Your task to perform on an android device: turn off location history Image 0: 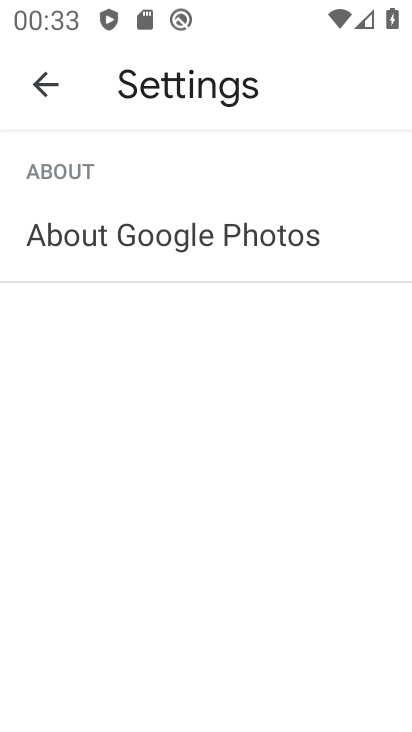
Step 0: press home button
Your task to perform on an android device: turn off location history Image 1: 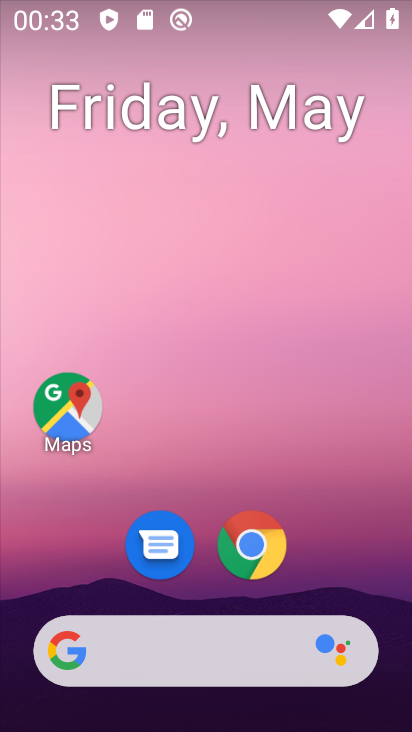
Step 1: drag from (279, 591) to (224, 205)
Your task to perform on an android device: turn off location history Image 2: 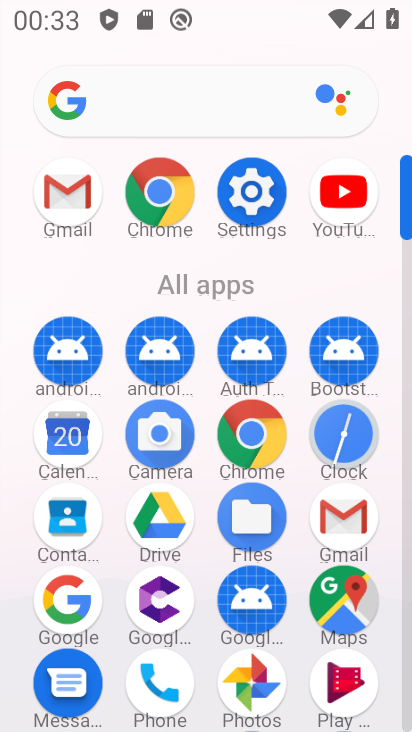
Step 2: click (265, 201)
Your task to perform on an android device: turn off location history Image 3: 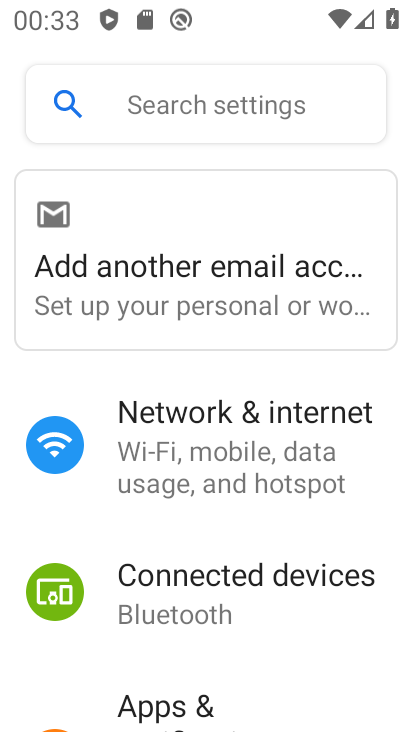
Step 3: drag from (224, 627) to (154, 329)
Your task to perform on an android device: turn off location history Image 4: 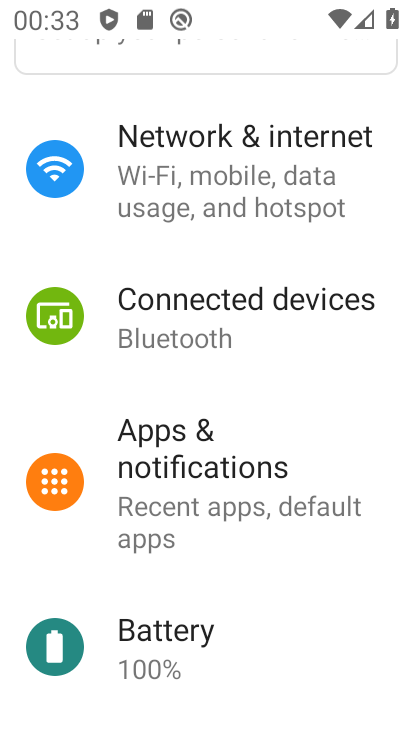
Step 4: click (170, 491)
Your task to perform on an android device: turn off location history Image 5: 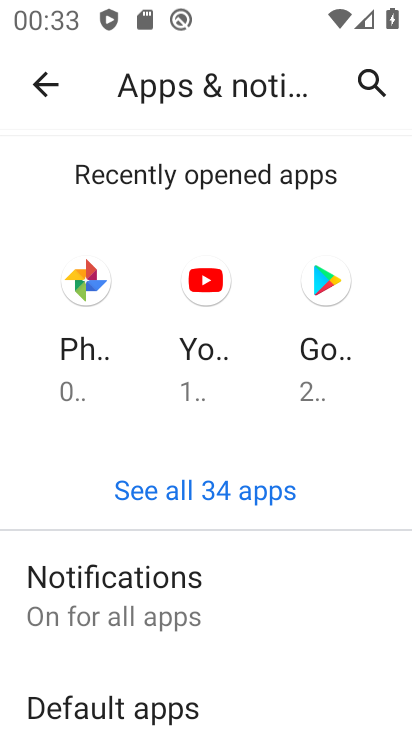
Step 5: drag from (200, 635) to (143, 396)
Your task to perform on an android device: turn off location history Image 6: 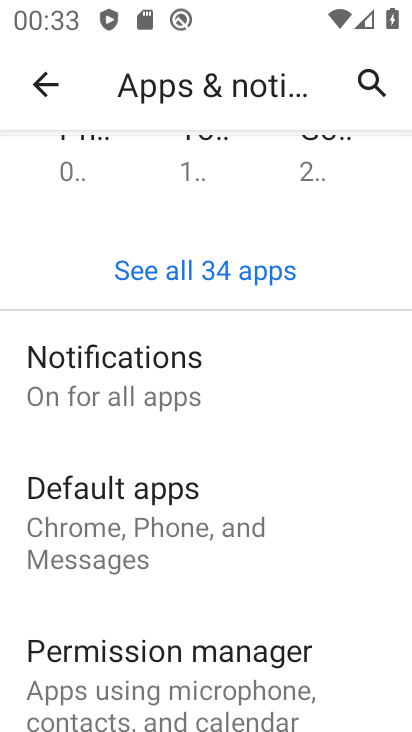
Step 6: press back button
Your task to perform on an android device: turn off location history Image 7: 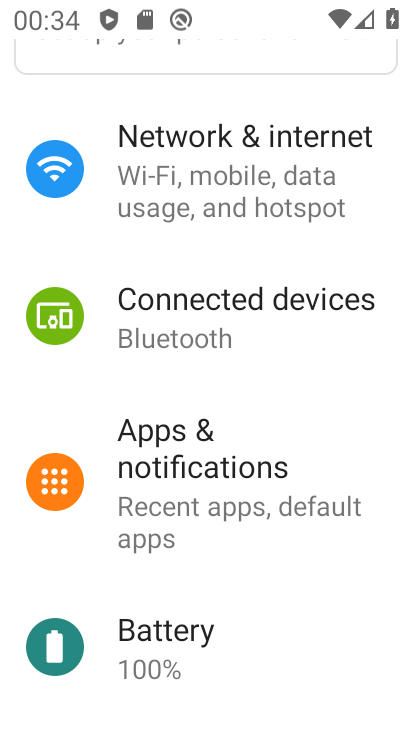
Step 7: click (175, 377)
Your task to perform on an android device: turn off location history Image 8: 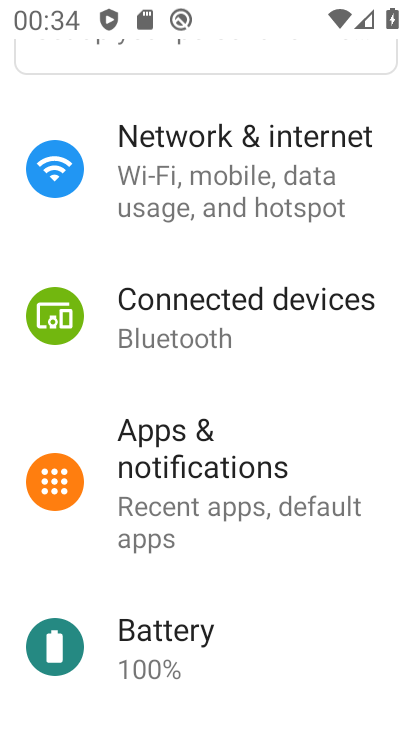
Step 8: drag from (256, 582) to (165, 260)
Your task to perform on an android device: turn off location history Image 9: 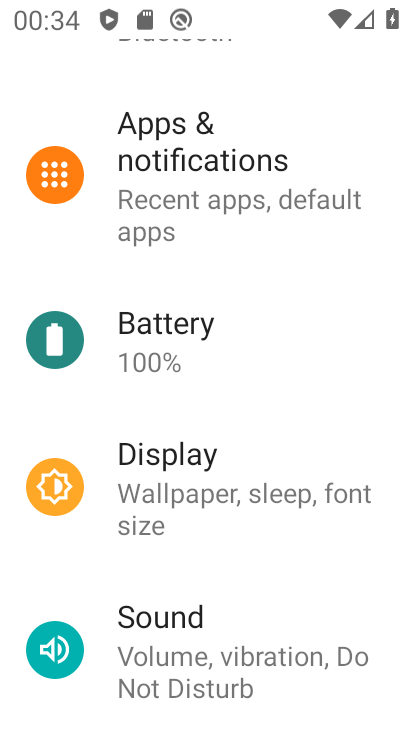
Step 9: drag from (203, 517) to (131, 236)
Your task to perform on an android device: turn off location history Image 10: 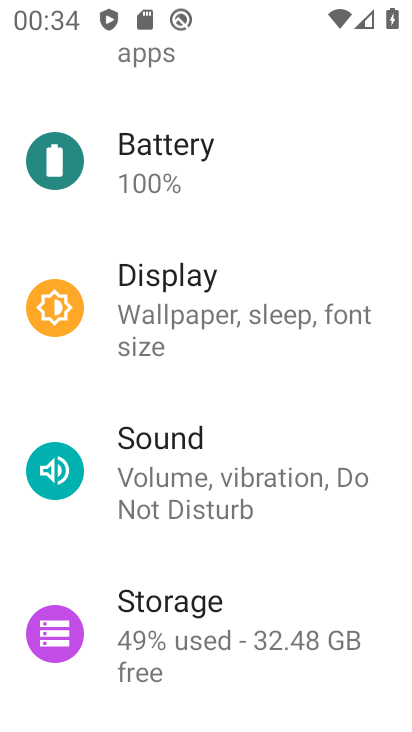
Step 10: drag from (245, 540) to (141, 270)
Your task to perform on an android device: turn off location history Image 11: 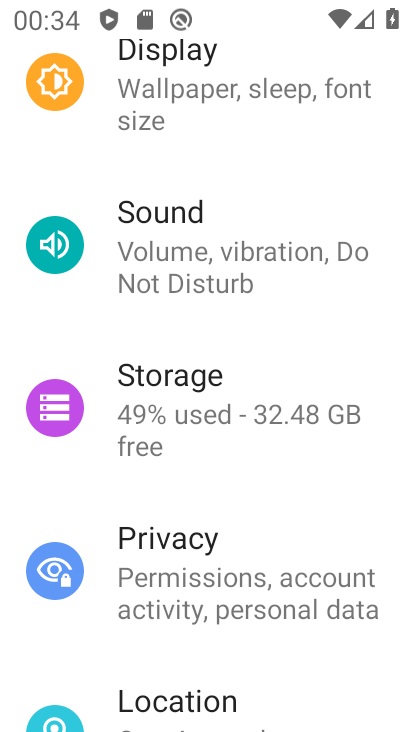
Step 11: drag from (268, 507) to (178, 205)
Your task to perform on an android device: turn off location history Image 12: 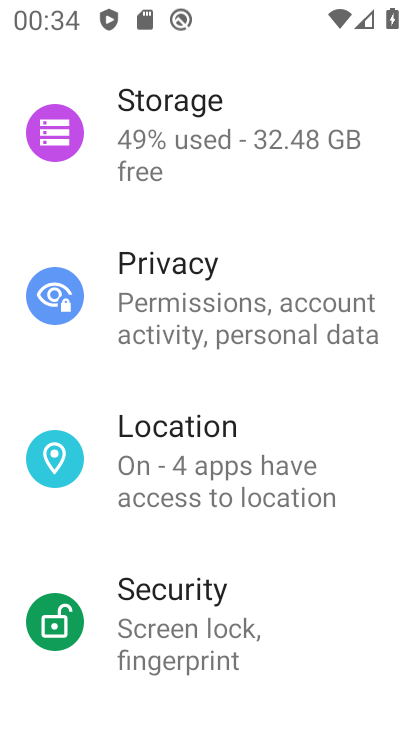
Step 12: click (229, 480)
Your task to perform on an android device: turn off location history Image 13: 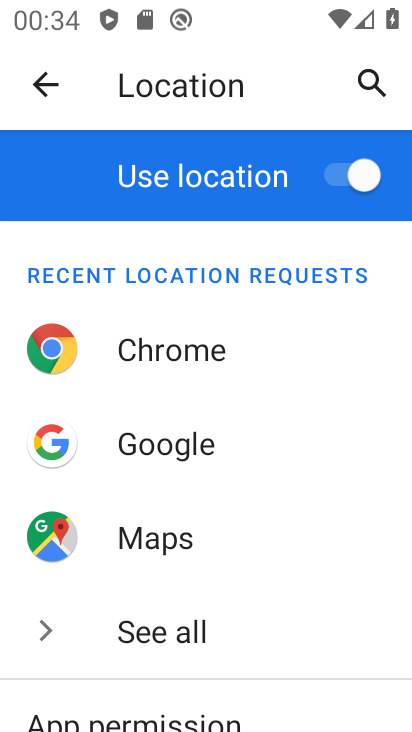
Step 13: drag from (204, 569) to (146, 177)
Your task to perform on an android device: turn off location history Image 14: 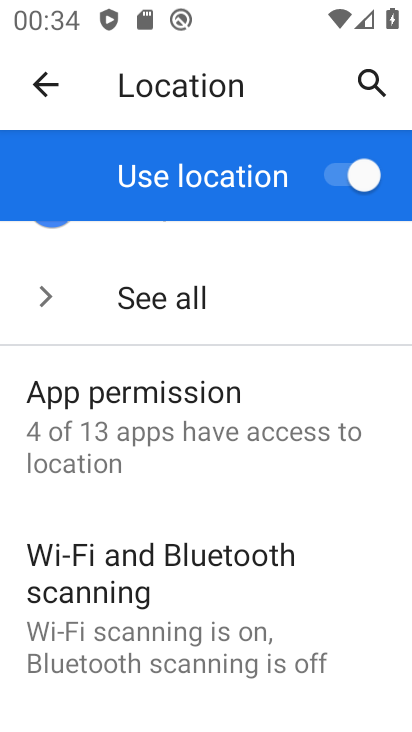
Step 14: drag from (216, 624) to (147, 167)
Your task to perform on an android device: turn off location history Image 15: 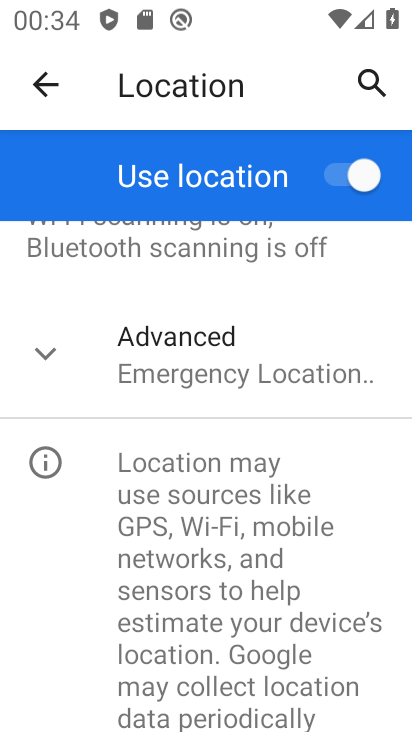
Step 15: click (204, 348)
Your task to perform on an android device: turn off location history Image 16: 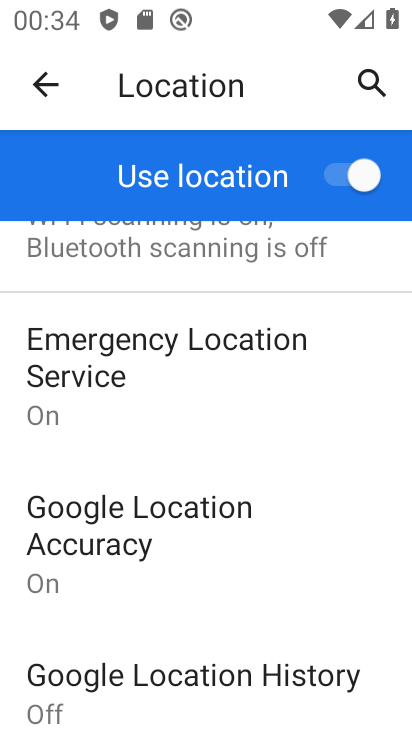
Step 16: drag from (190, 600) to (155, 344)
Your task to perform on an android device: turn off location history Image 17: 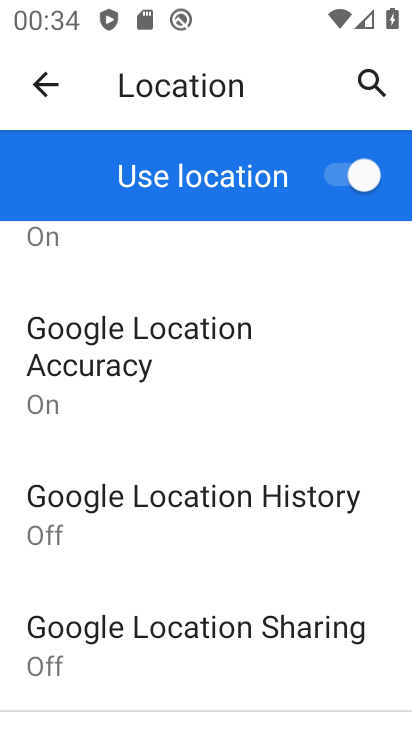
Step 17: click (198, 500)
Your task to perform on an android device: turn off location history Image 18: 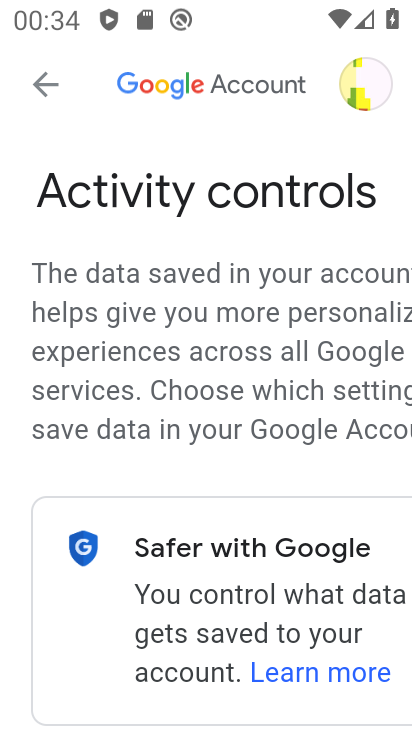
Step 18: drag from (254, 591) to (156, 133)
Your task to perform on an android device: turn off location history Image 19: 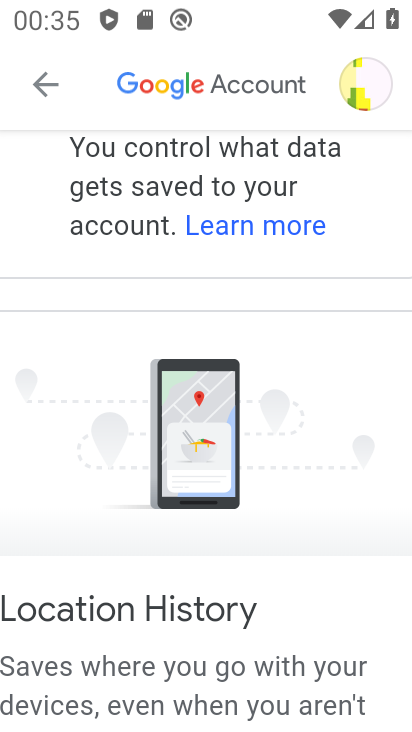
Step 19: drag from (216, 629) to (161, 110)
Your task to perform on an android device: turn off location history Image 20: 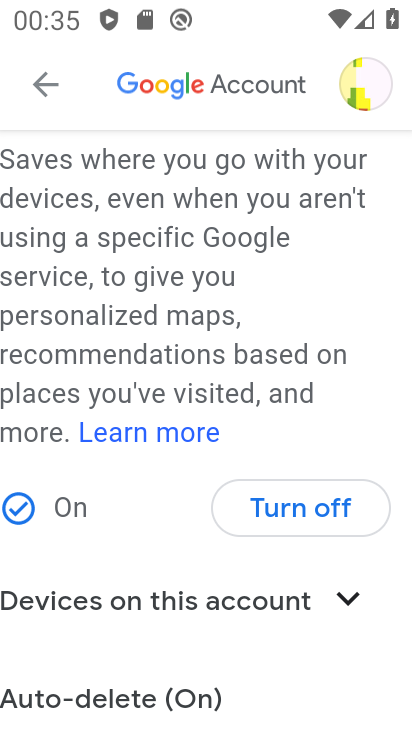
Step 20: click (314, 506)
Your task to perform on an android device: turn off location history Image 21: 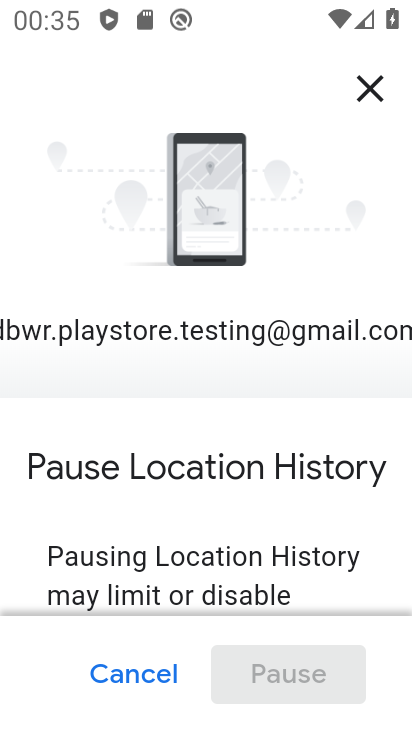
Step 21: drag from (325, 562) to (230, 175)
Your task to perform on an android device: turn off location history Image 22: 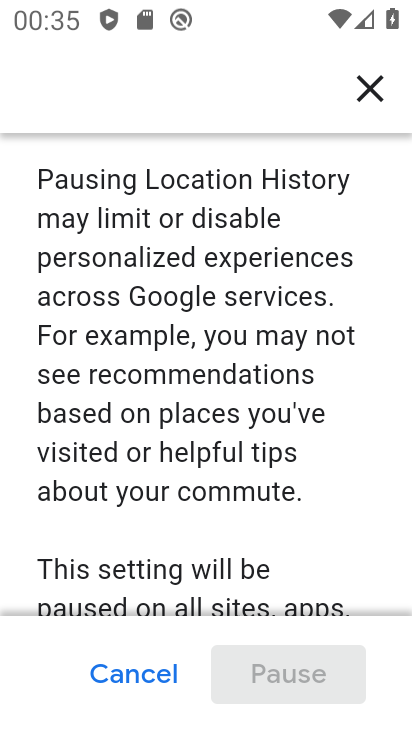
Step 22: drag from (252, 412) to (215, 202)
Your task to perform on an android device: turn off location history Image 23: 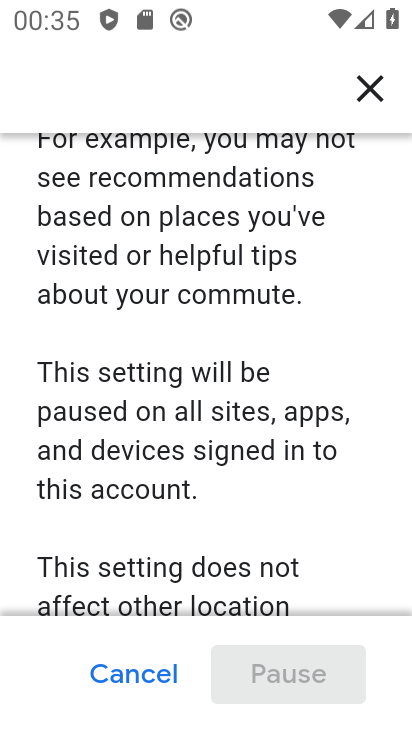
Step 23: drag from (247, 476) to (209, 178)
Your task to perform on an android device: turn off location history Image 24: 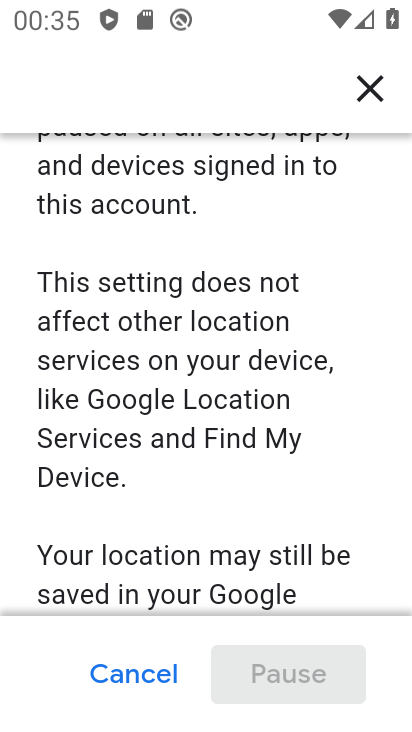
Step 24: drag from (252, 466) to (194, 9)
Your task to perform on an android device: turn off location history Image 25: 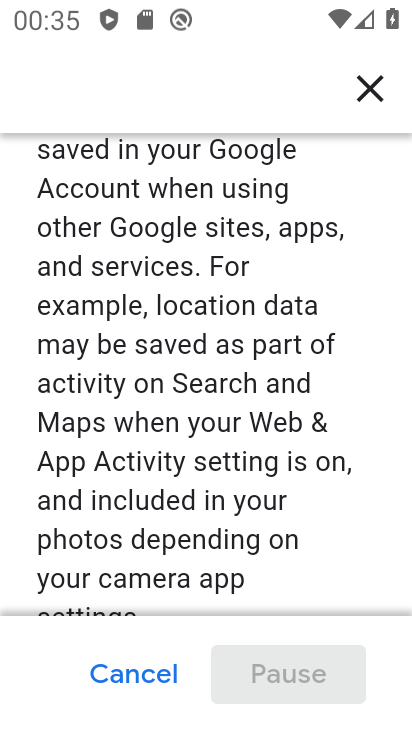
Step 25: click (306, 470)
Your task to perform on an android device: turn off location history Image 26: 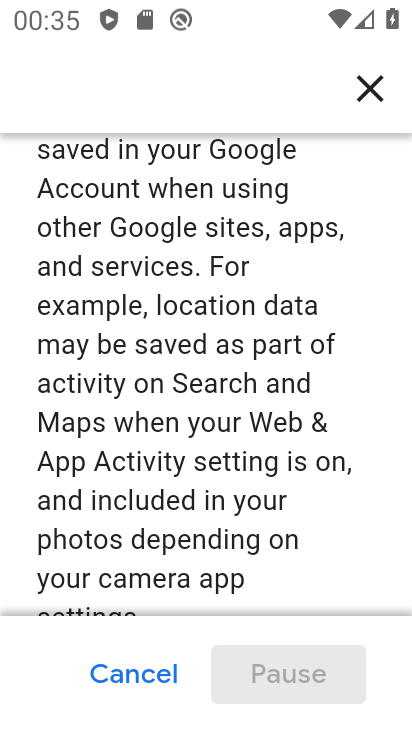
Step 26: drag from (289, 435) to (237, 158)
Your task to perform on an android device: turn off location history Image 27: 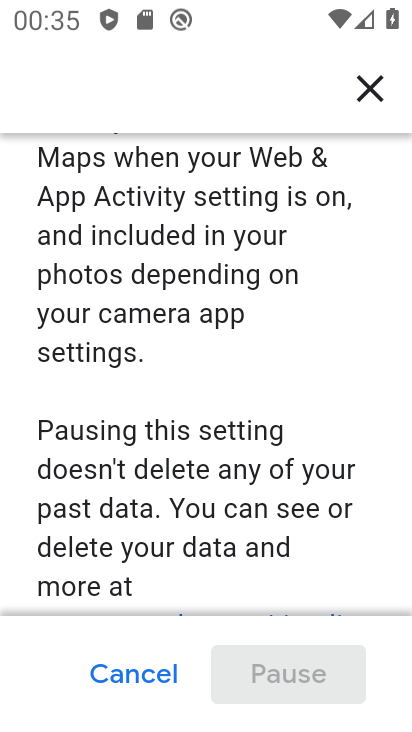
Step 27: drag from (281, 466) to (212, 173)
Your task to perform on an android device: turn off location history Image 28: 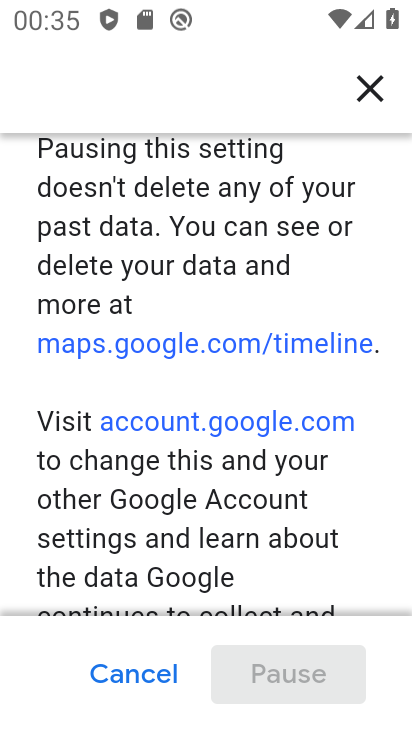
Step 28: drag from (247, 422) to (220, 171)
Your task to perform on an android device: turn off location history Image 29: 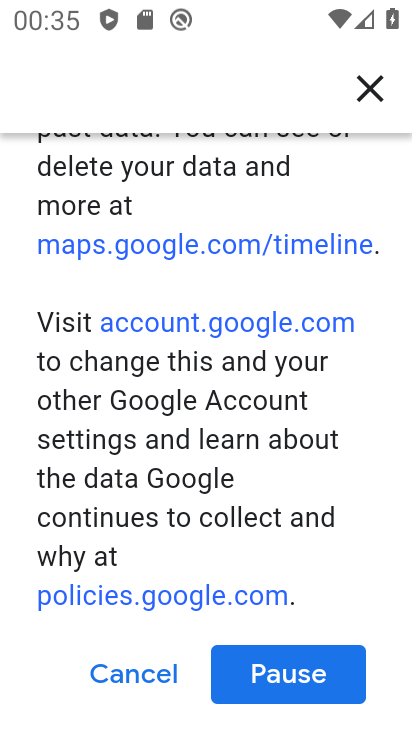
Step 29: drag from (284, 479) to (270, 437)
Your task to perform on an android device: turn off location history Image 30: 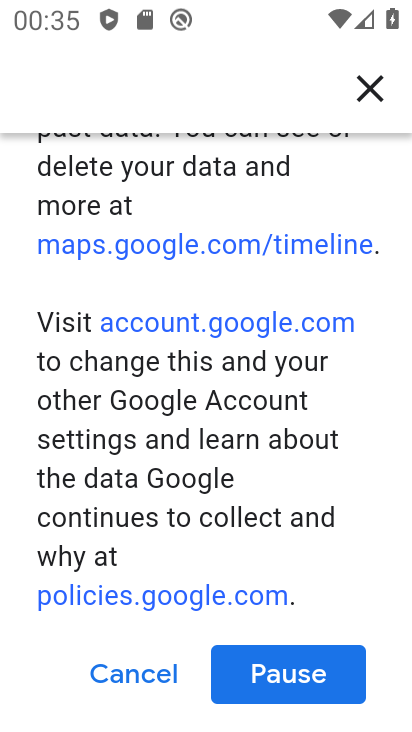
Step 30: click (289, 674)
Your task to perform on an android device: turn off location history Image 31: 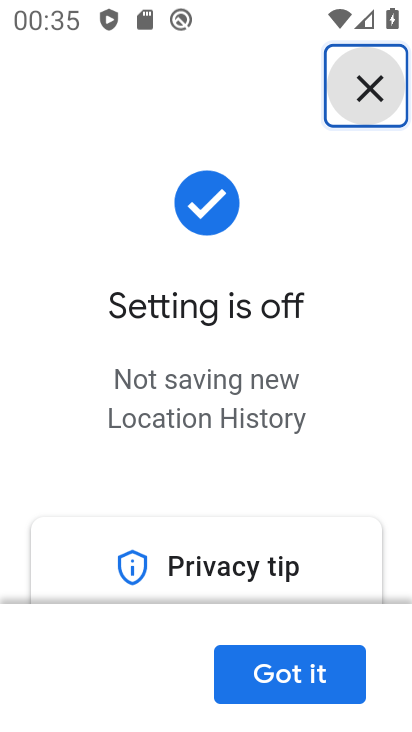
Step 31: click (287, 669)
Your task to perform on an android device: turn off location history Image 32: 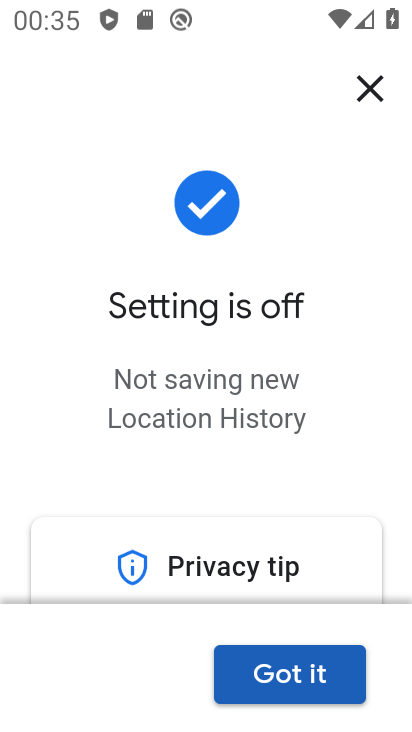
Step 32: click (287, 684)
Your task to perform on an android device: turn off location history Image 33: 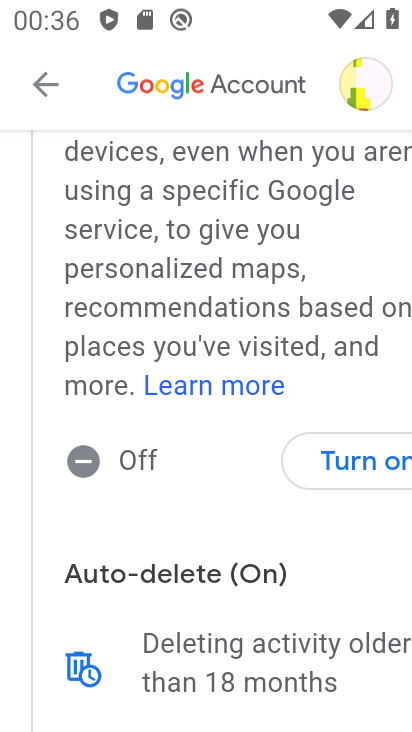
Step 33: task complete